Your task to perform on an android device: open chrome privacy settings Image 0: 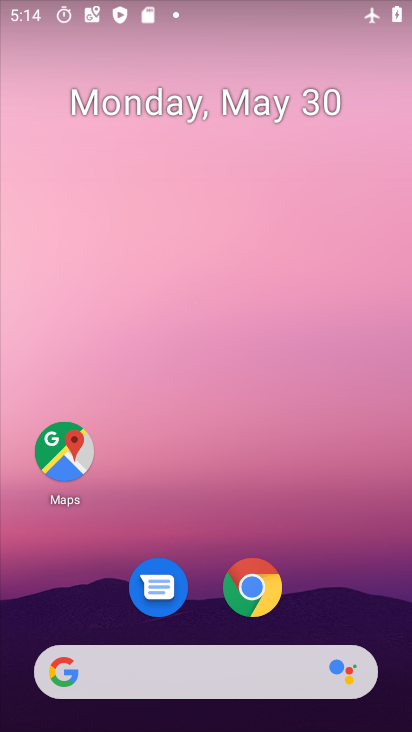
Step 0: click (252, 588)
Your task to perform on an android device: open chrome privacy settings Image 1: 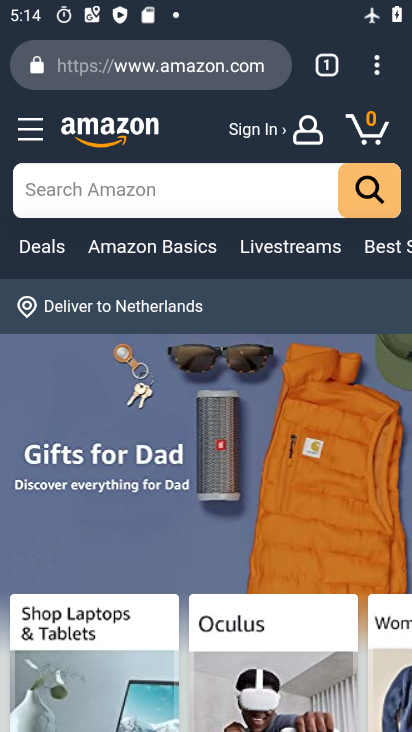
Step 1: click (376, 67)
Your task to perform on an android device: open chrome privacy settings Image 2: 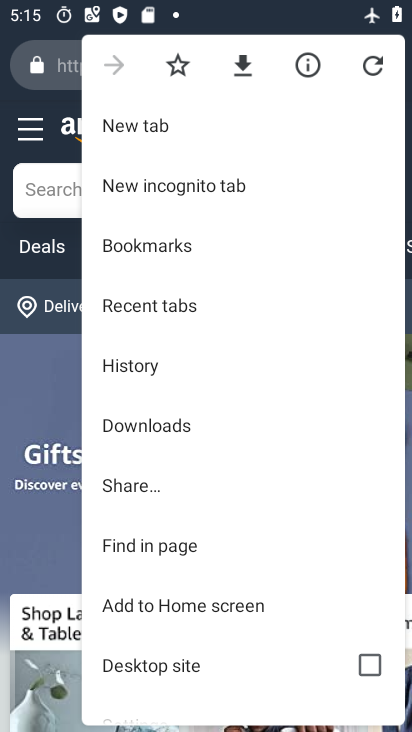
Step 2: drag from (200, 571) to (157, 391)
Your task to perform on an android device: open chrome privacy settings Image 3: 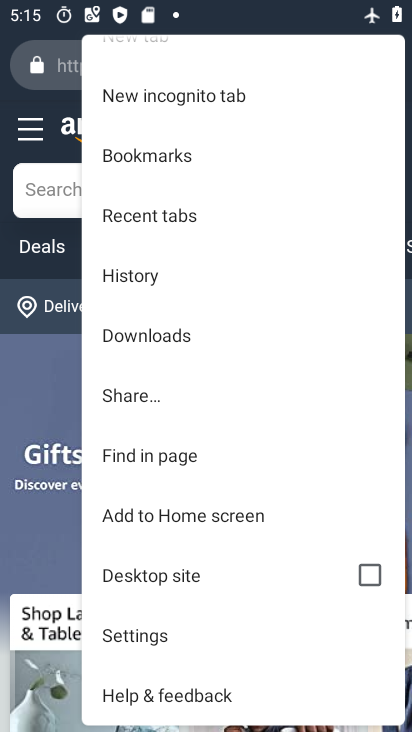
Step 3: drag from (200, 616) to (182, 430)
Your task to perform on an android device: open chrome privacy settings Image 4: 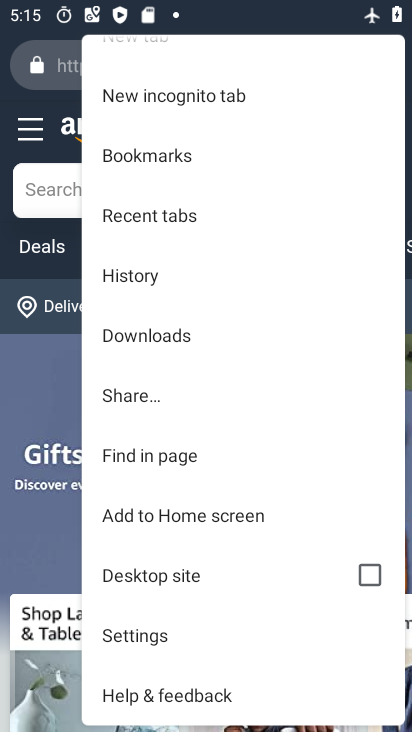
Step 4: click (142, 637)
Your task to perform on an android device: open chrome privacy settings Image 5: 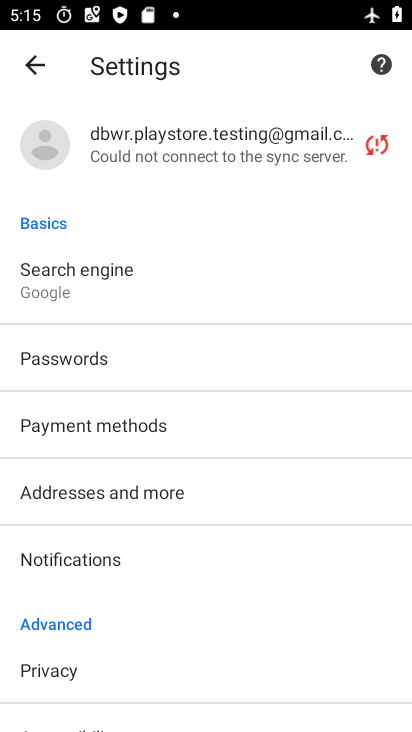
Step 5: drag from (79, 581) to (73, 422)
Your task to perform on an android device: open chrome privacy settings Image 6: 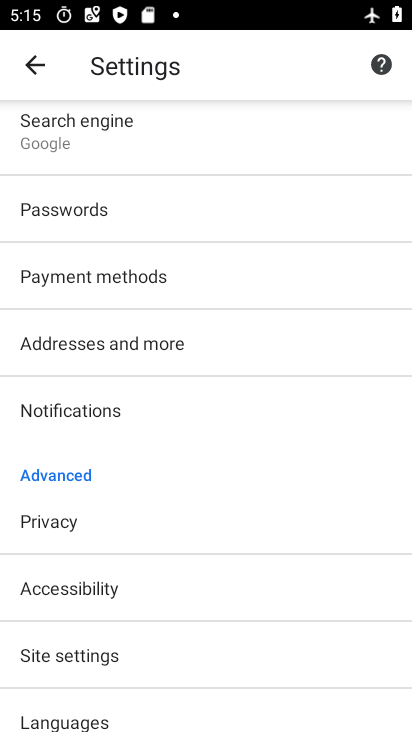
Step 6: click (58, 526)
Your task to perform on an android device: open chrome privacy settings Image 7: 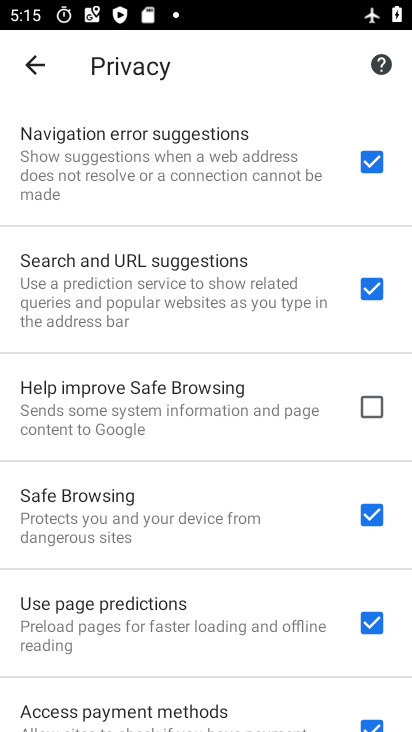
Step 7: task complete